Your task to perform on an android device: Open battery settings Image 0: 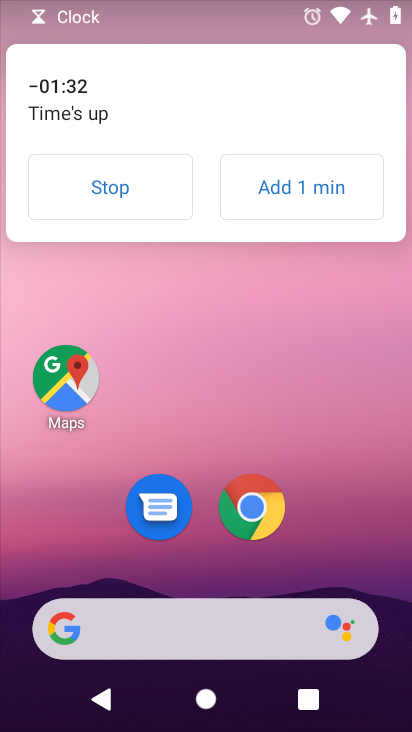
Step 0: drag from (224, 727) to (221, 173)
Your task to perform on an android device: Open battery settings Image 1: 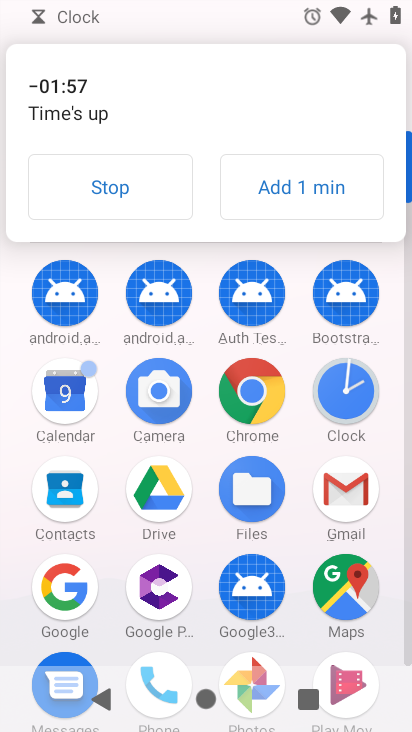
Step 1: drag from (196, 619) to (201, 183)
Your task to perform on an android device: Open battery settings Image 2: 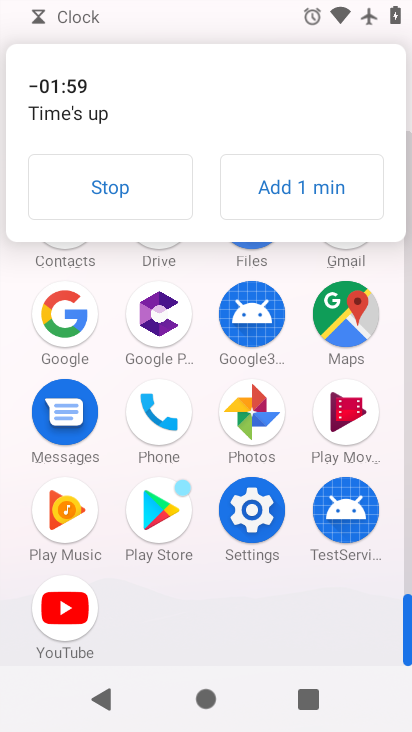
Step 2: click (239, 499)
Your task to perform on an android device: Open battery settings Image 3: 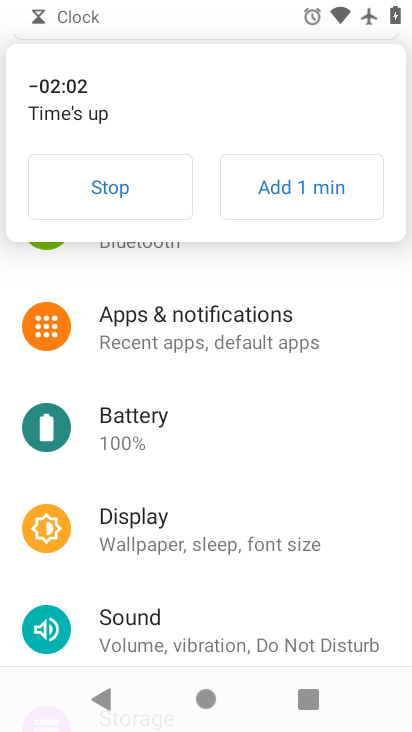
Step 3: click (128, 425)
Your task to perform on an android device: Open battery settings Image 4: 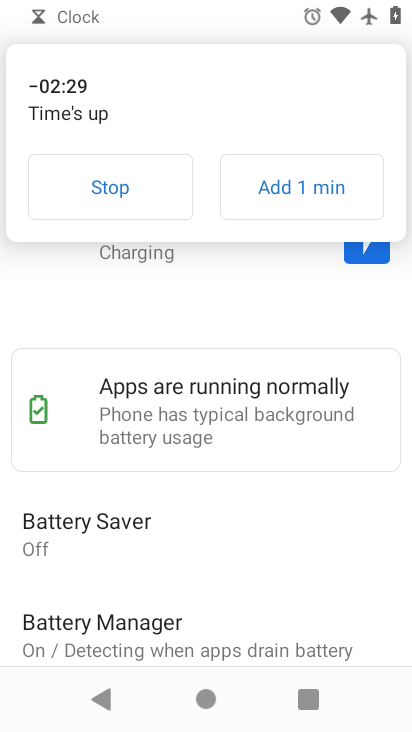
Step 4: task complete